Your task to perform on an android device: turn pop-ups off in chrome Image 0: 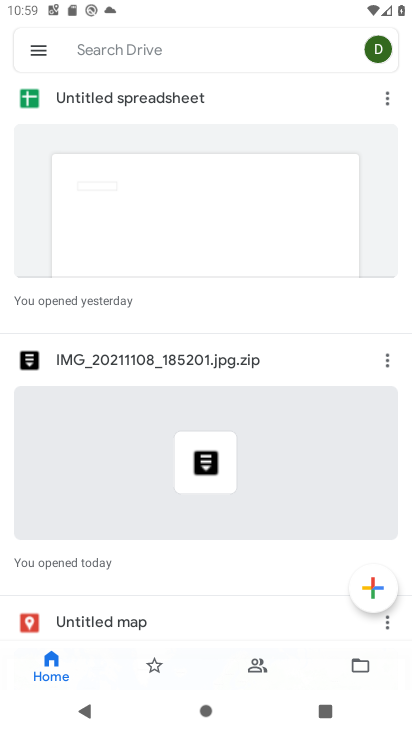
Step 0: press home button
Your task to perform on an android device: turn pop-ups off in chrome Image 1: 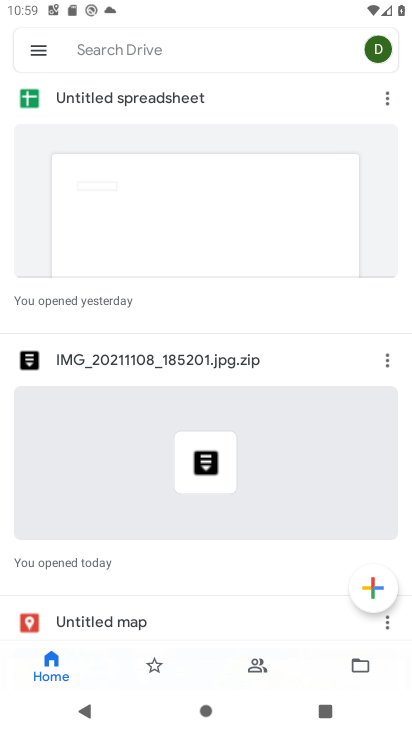
Step 1: press home button
Your task to perform on an android device: turn pop-ups off in chrome Image 2: 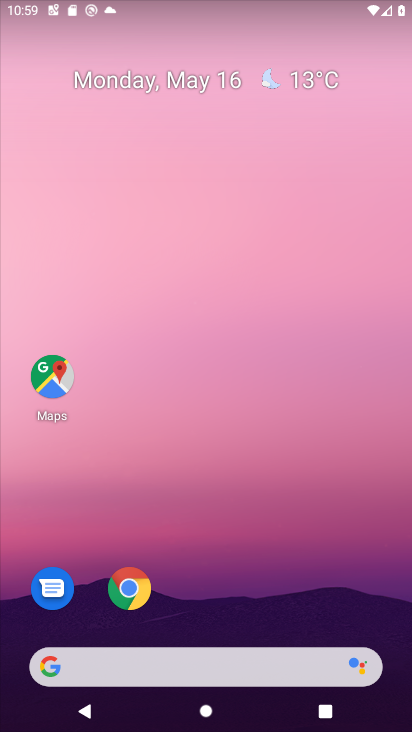
Step 2: click (128, 578)
Your task to perform on an android device: turn pop-ups off in chrome Image 3: 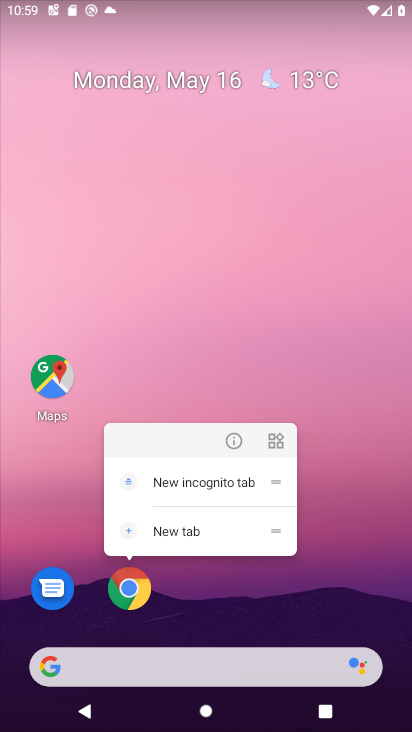
Step 3: click (126, 586)
Your task to perform on an android device: turn pop-ups off in chrome Image 4: 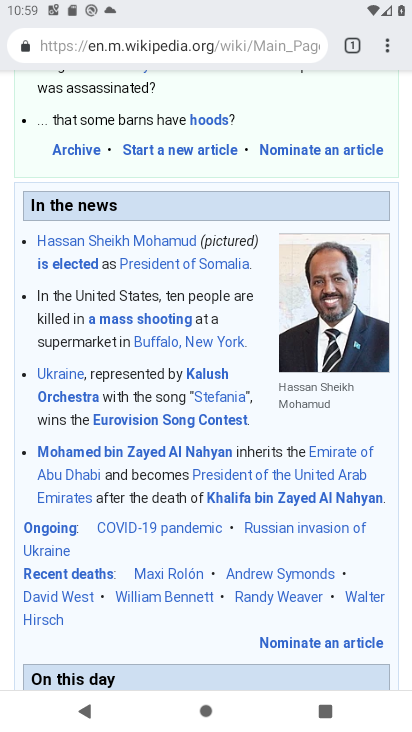
Step 4: click (391, 41)
Your task to perform on an android device: turn pop-ups off in chrome Image 5: 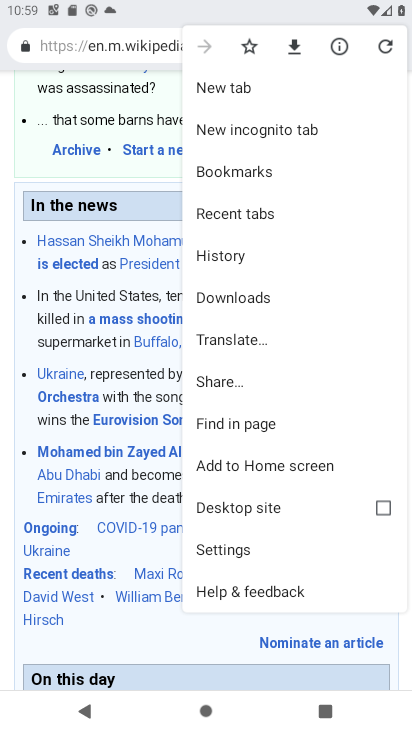
Step 5: click (261, 545)
Your task to perform on an android device: turn pop-ups off in chrome Image 6: 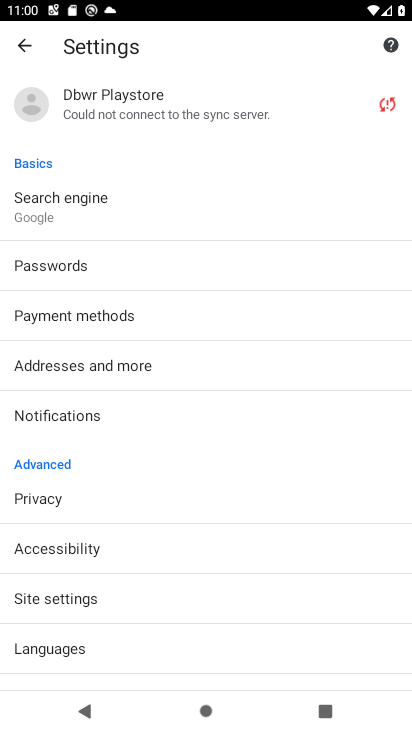
Step 6: click (127, 599)
Your task to perform on an android device: turn pop-ups off in chrome Image 7: 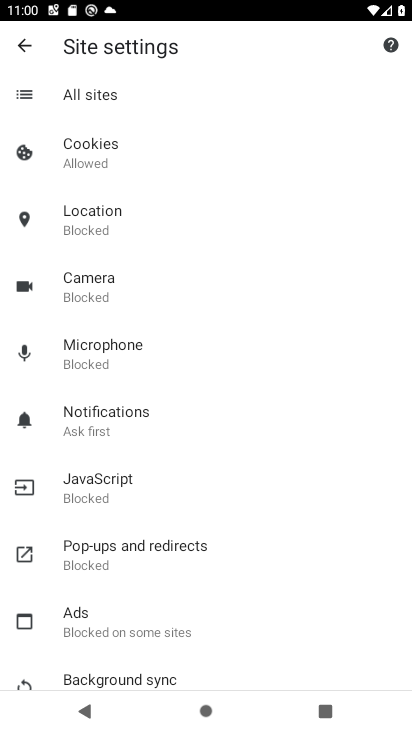
Step 7: click (159, 557)
Your task to perform on an android device: turn pop-ups off in chrome Image 8: 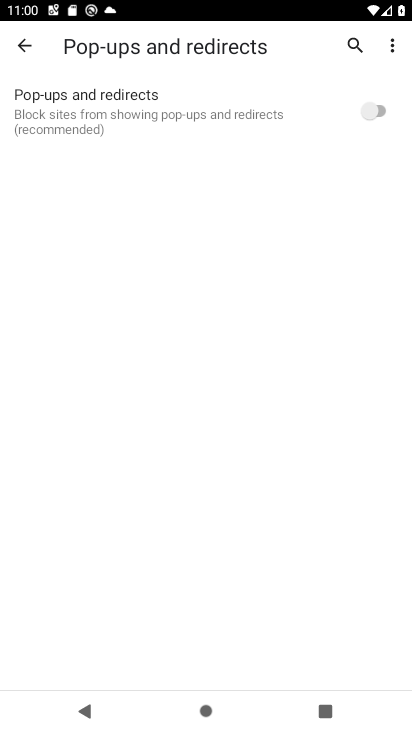
Step 8: task complete